Your task to perform on an android device: Show me recent news Image 0: 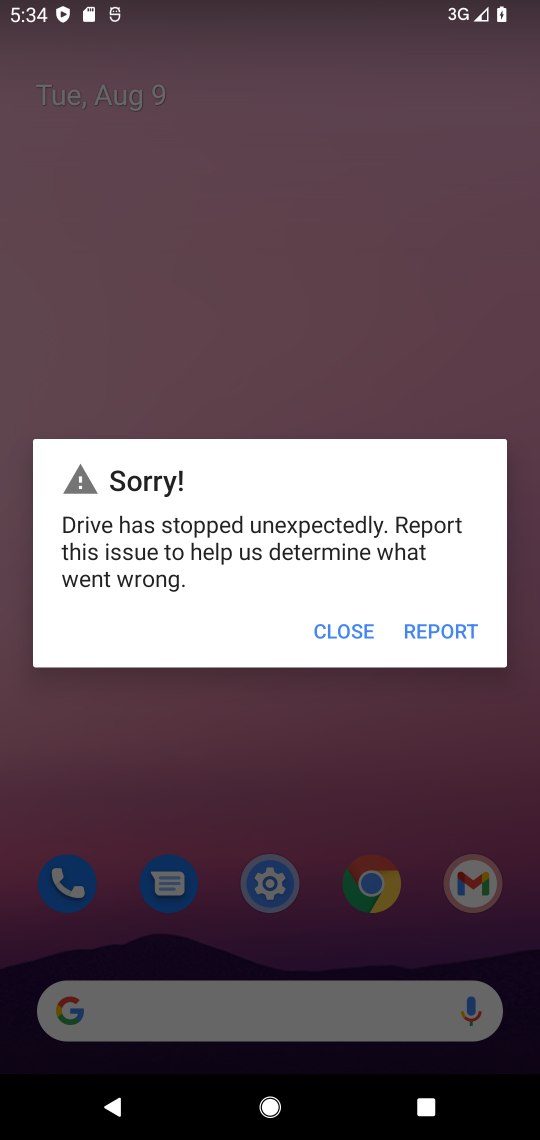
Step 0: press home button
Your task to perform on an android device: Show me recent news Image 1: 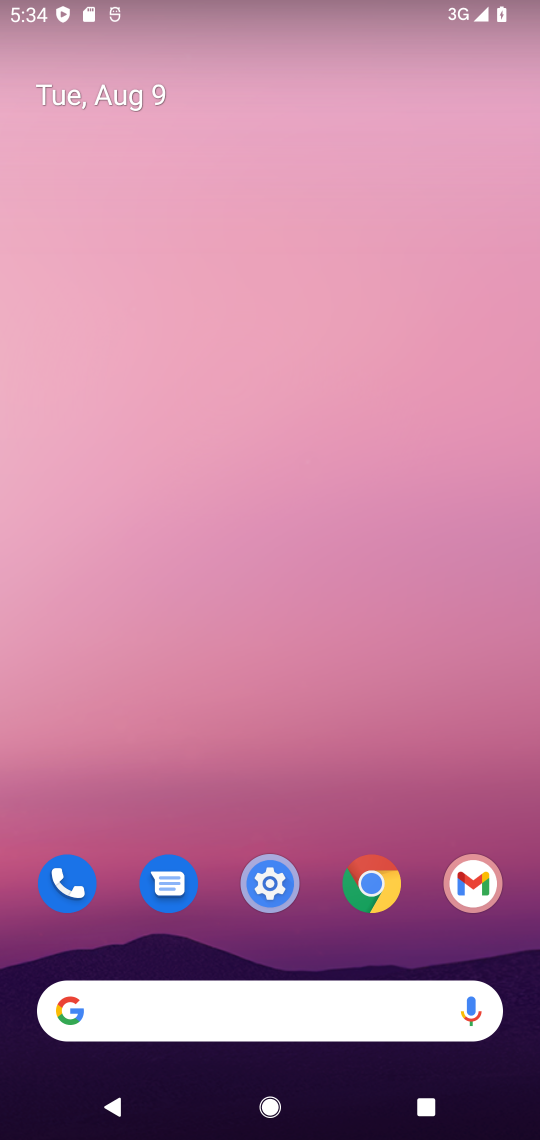
Step 1: drag from (290, 813) to (222, 199)
Your task to perform on an android device: Show me recent news Image 2: 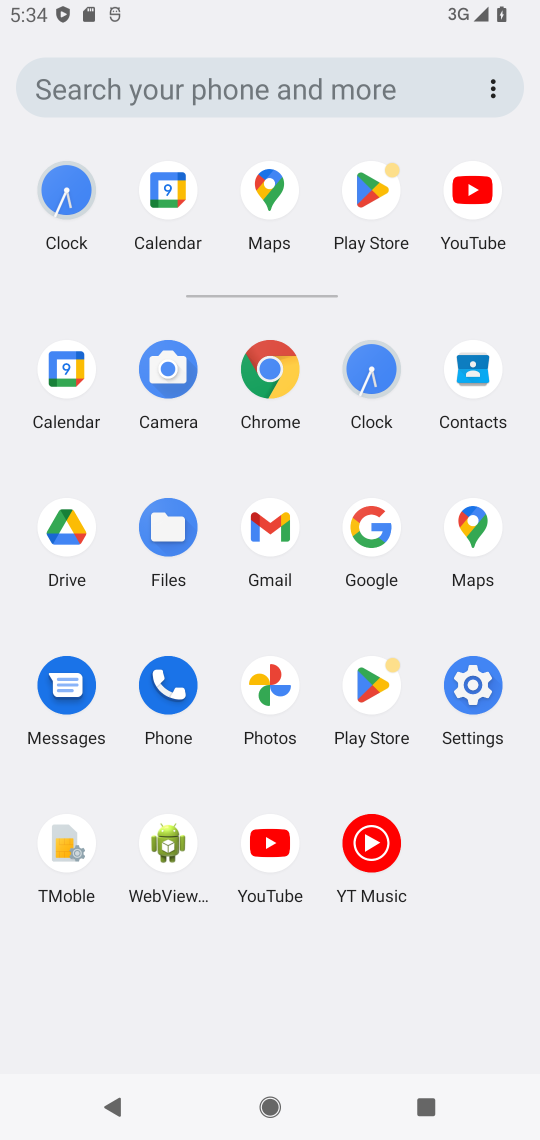
Step 2: click (373, 558)
Your task to perform on an android device: Show me recent news Image 3: 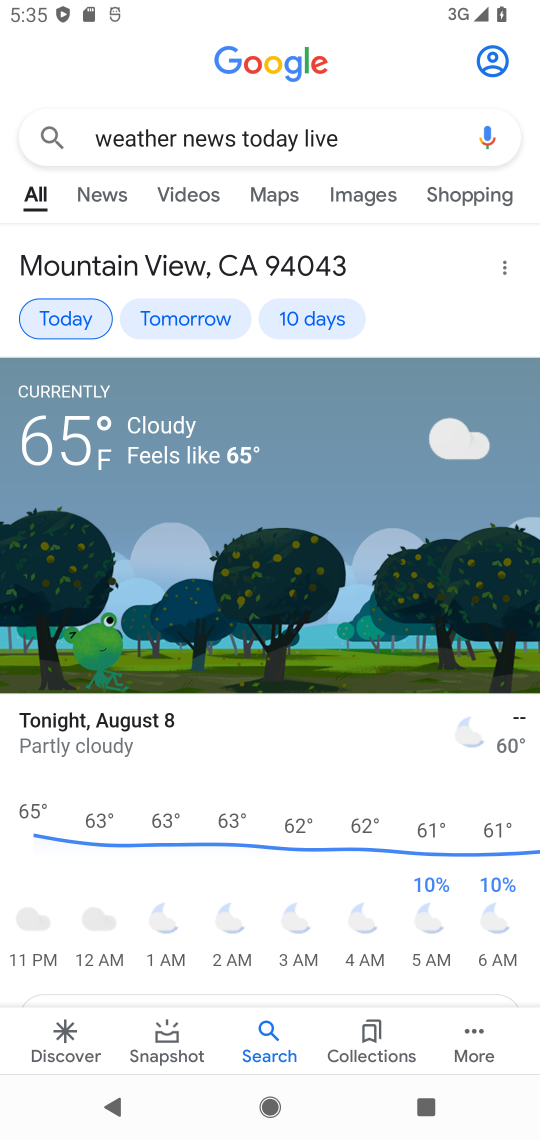
Step 3: click (354, 122)
Your task to perform on an android device: Show me recent news Image 4: 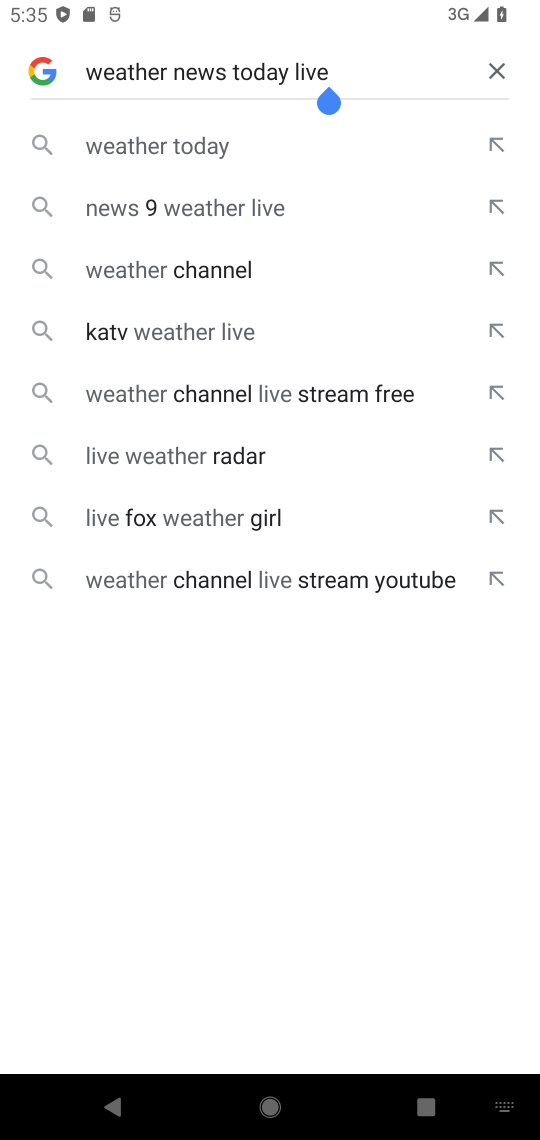
Step 4: click (492, 71)
Your task to perform on an android device: Show me recent news Image 5: 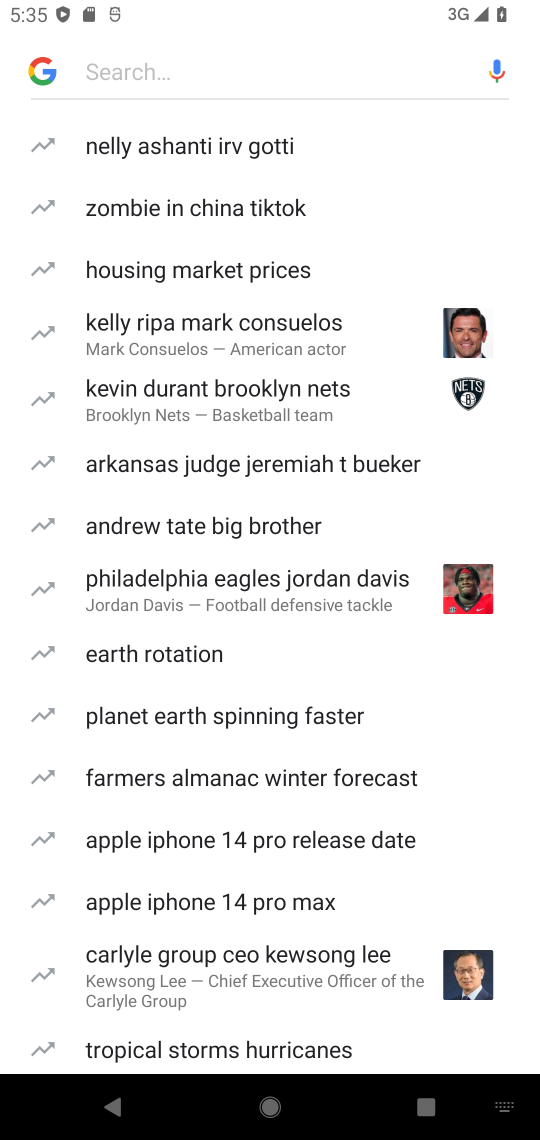
Step 5: type "news"
Your task to perform on an android device: Show me recent news Image 6: 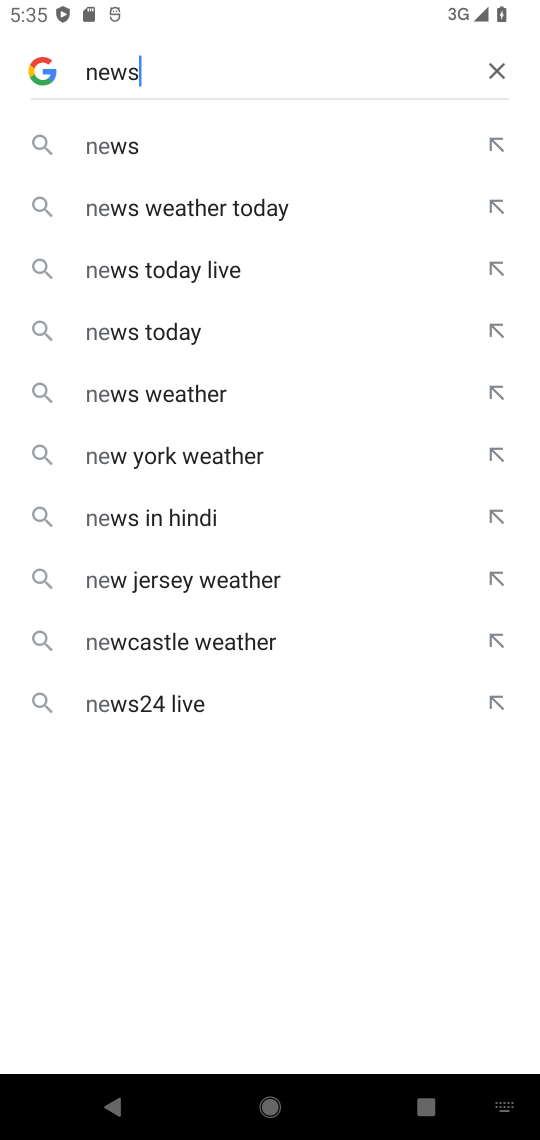
Step 6: type ""
Your task to perform on an android device: Show me recent news Image 7: 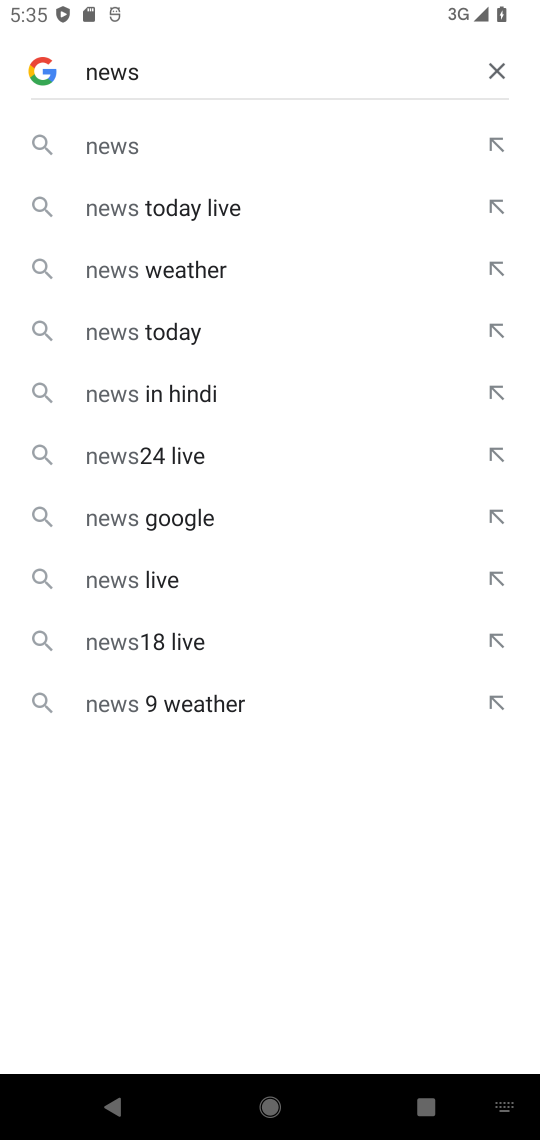
Step 7: click (143, 148)
Your task to perform on an android device: Show me recent news Image 8: 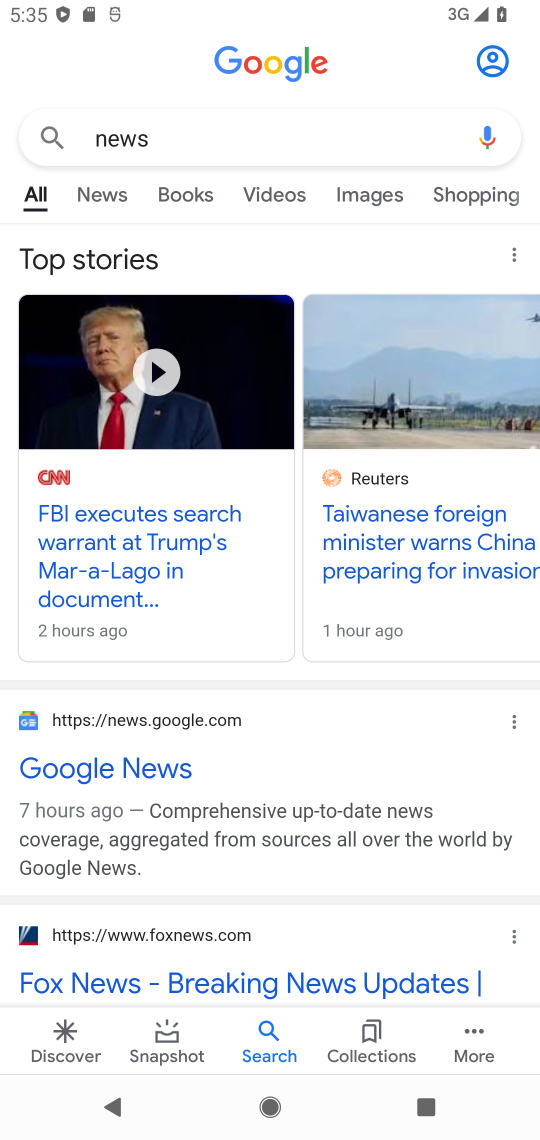
Step 8: click (116, 196)
Your task to perform on an android device: Show me recent news Image 9: 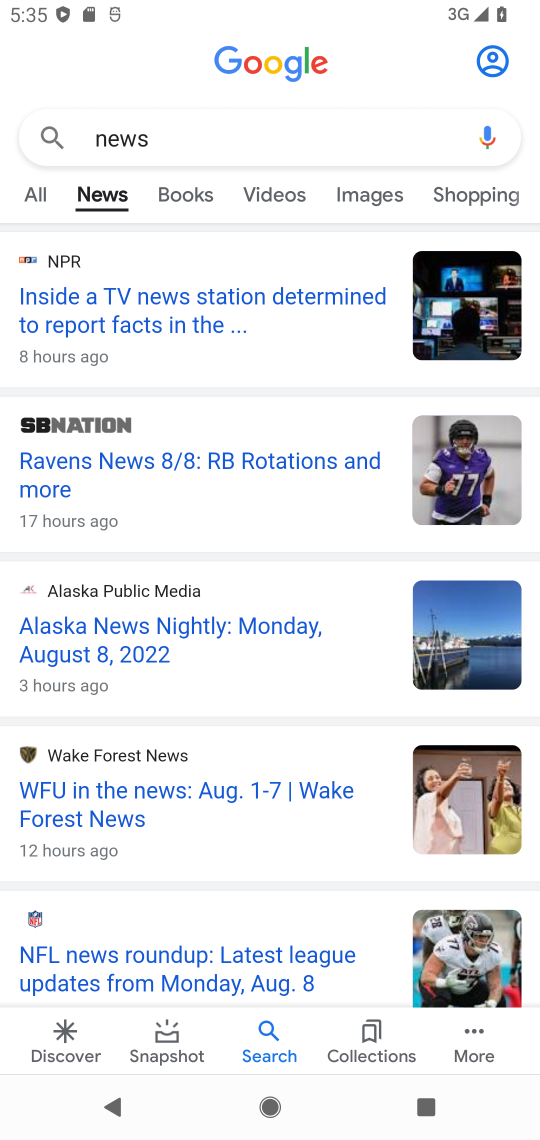
Step 9: task complete